Your task to perform on an android device: Open eBay Image 0: 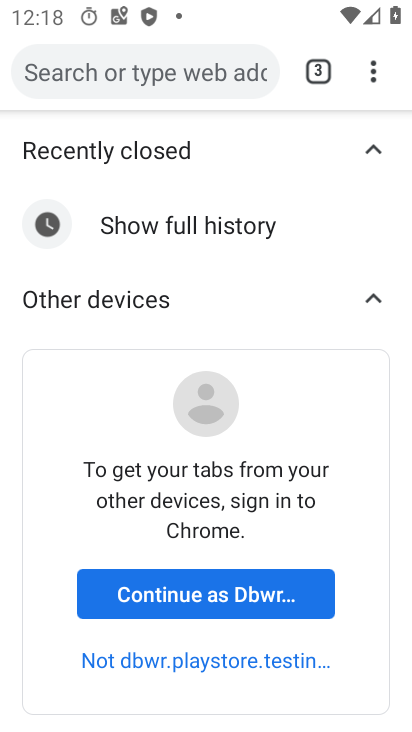
Step 0: press home button
Your task to perform on an android device: Open eBay Image 1: 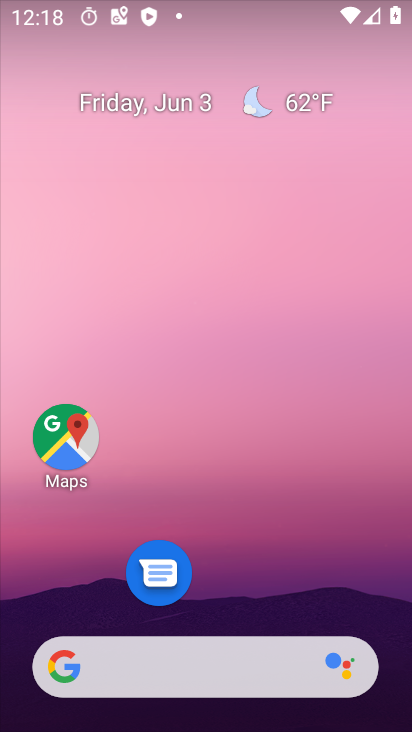
Step 1: drag from (263, 684) to (278, 108)
Your task to perform on an android device: Open eBay Image 2: 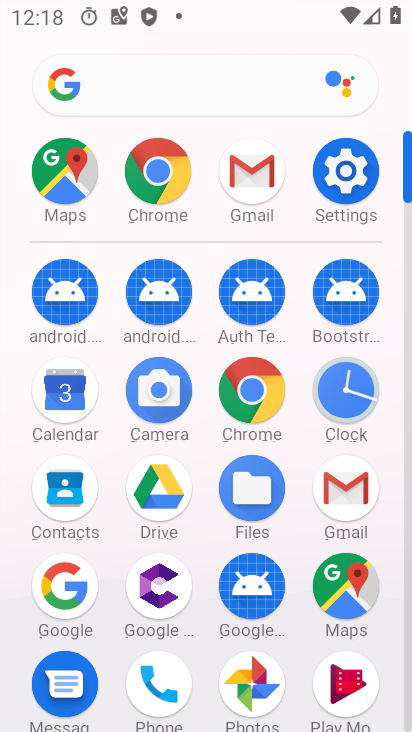
Step 2: click (261, 388)
Your task to perform on an android device: Open eBay Image 3: 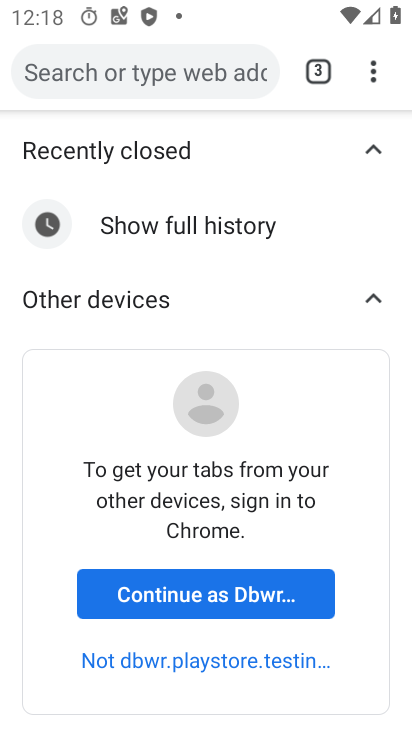
Step 3: click (174, 65)
Your task to perform on an android device: Open eBay Image 4: 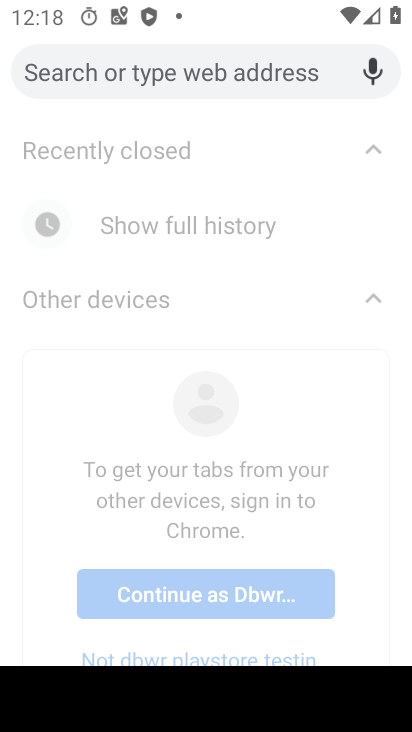
Step 4: type "ebay"
Your task to perform on an android device: Open eBay Image 5: 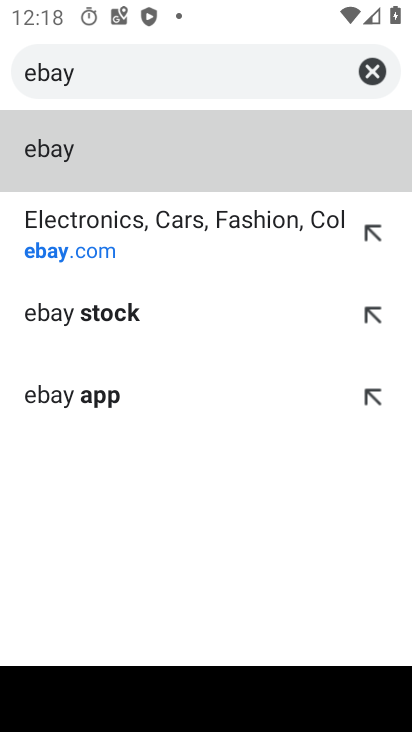
Step 5: click (259, 192)
Your task to perform on an android device: Open eBay Image 6: 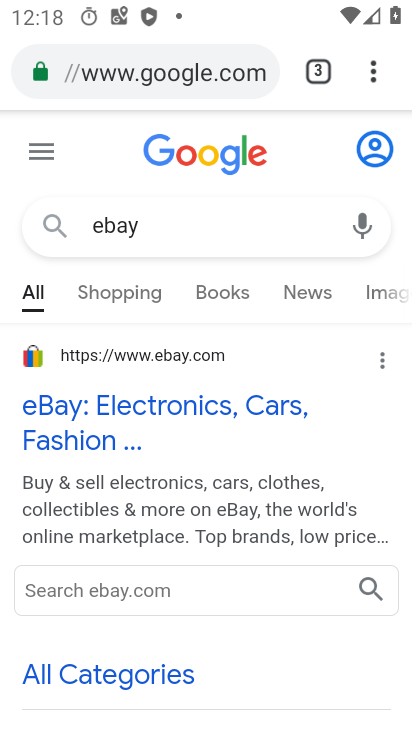
Step 6: task complete